Your task to perform on an android device: check data usage Image 0: 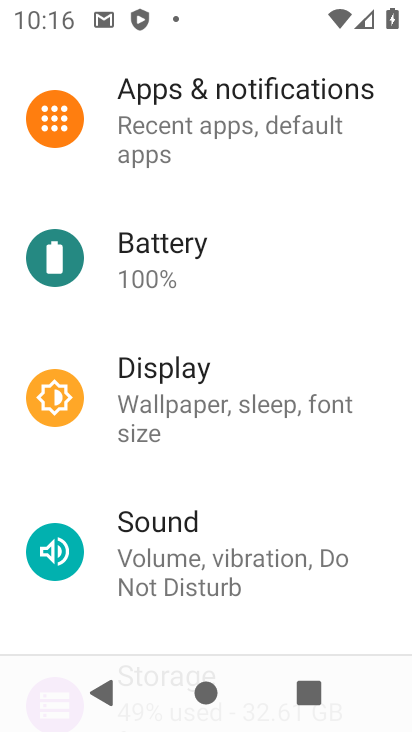
Step 0: press home button
Your task to perform on an android device: check data usage Image 1: 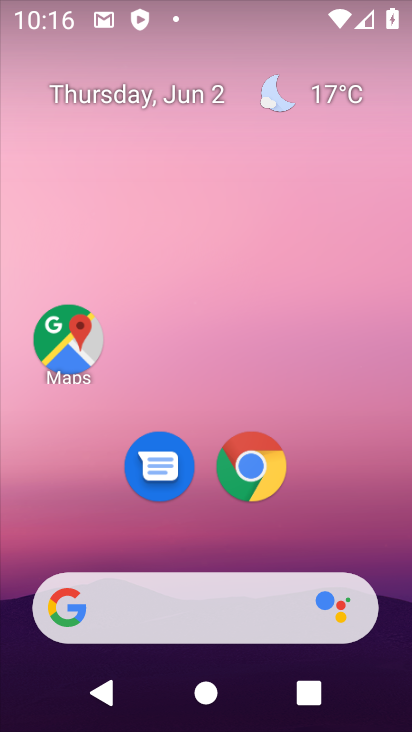
Step 1: drag from (284, 544) to (272, 32)
Your task to perform on an android device: check data usage Image 2: 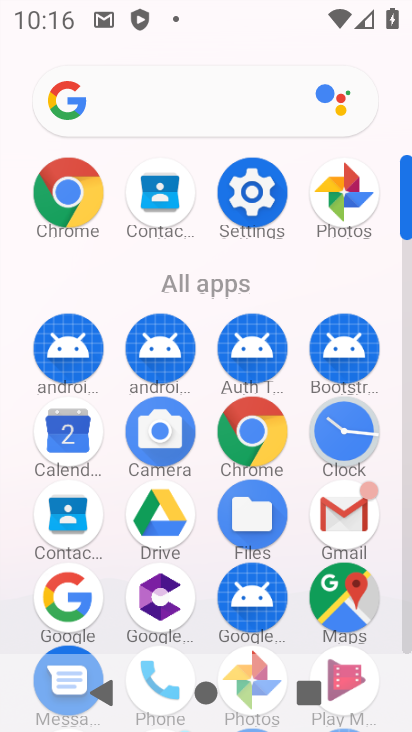
Step 2: click (255, 197)
Your task to perform on an android device: check data usage Image 3: 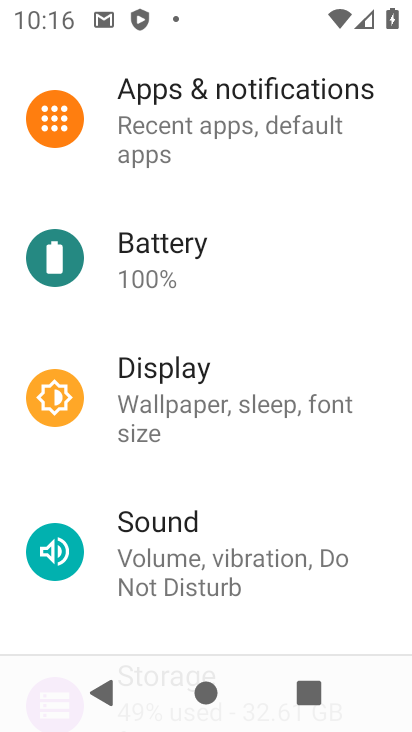
Step 3: drag from (250, 189) to (272, 592)
Your task to perform on an android device: check data usage Image 4: 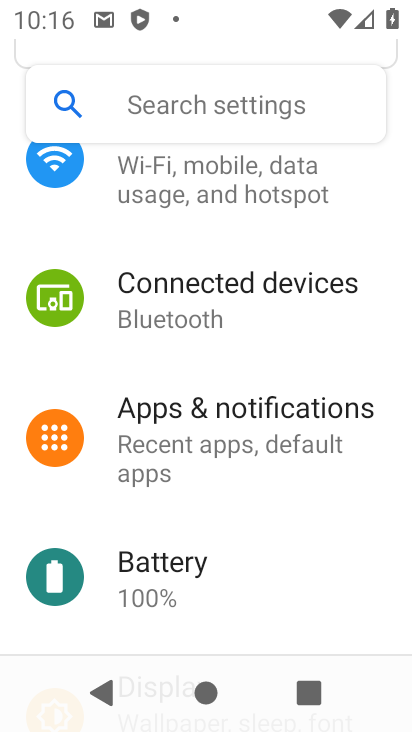
Step 4: drag from (257, 257) to (280, 586)
Your task to perform on an android device: check data usage Image 5: 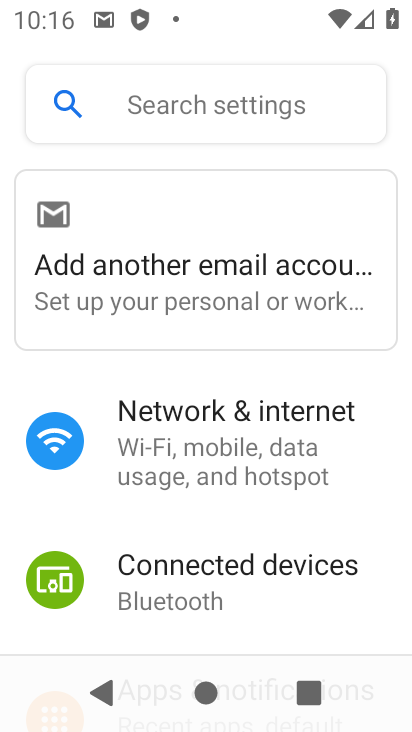
Step 5: click (230, 424)
Your task to perform on an android device: check data usage Image 6: 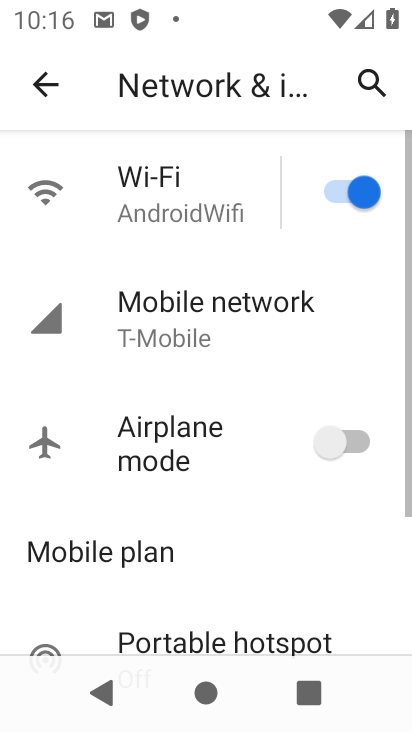
Step 6: click (165, 299)
Your task to perform on an android device: check data usage Image 7: 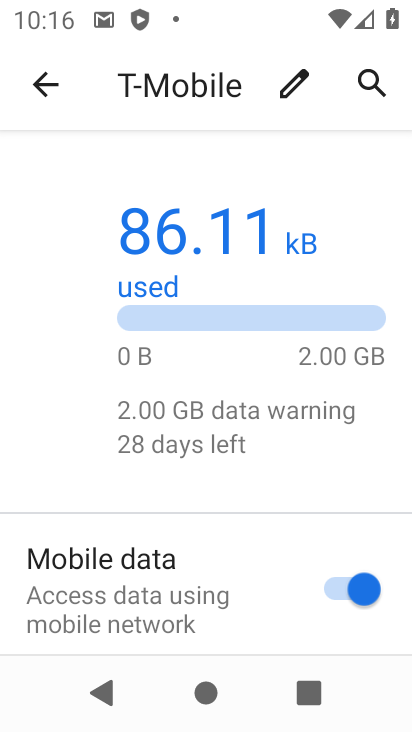
Step 7: drag from (264, 549) to (235, 236)
Your task to perform on an android device: check data usage Image 8: 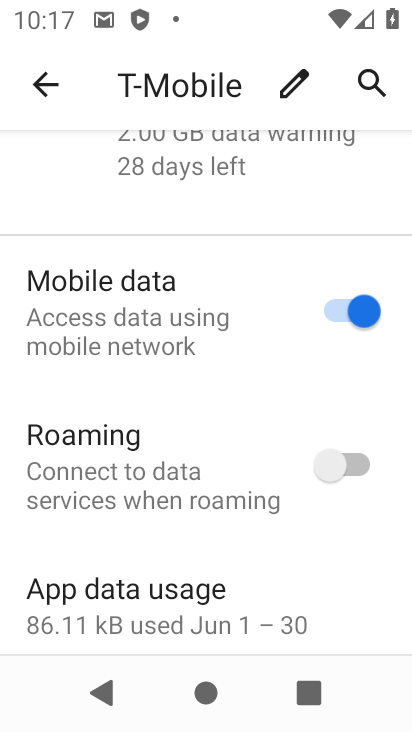
Step 8: click (193, 606)
Your task to perform on an android device: check data usage Image 9: 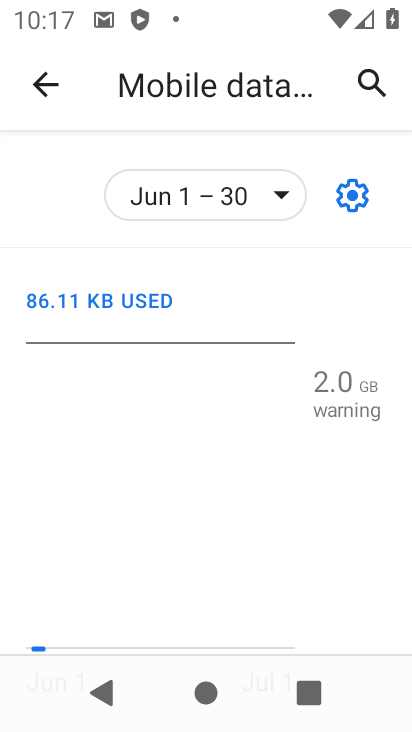
Step 9: task complete